Your task to perform on an android device: toggle wifi Image 0: 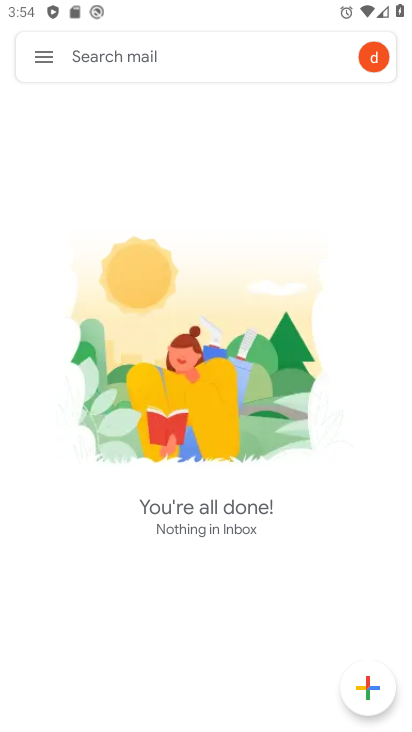
Step 0: press back button
Your task to perform on an android device: toggle wifi Image 1: 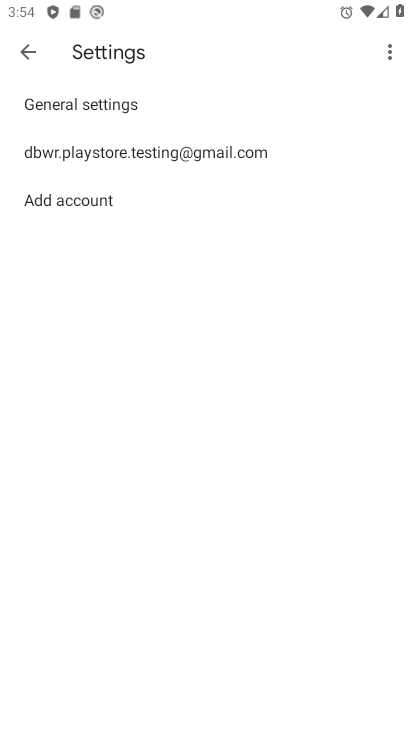
Step 1: press home button
Your task to perform on an android device: toggle wifi Image 2: 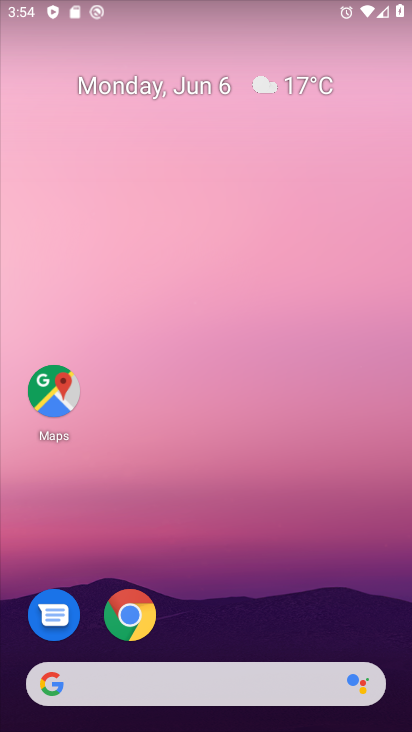
Step 2: drag from (272, 557) to (183, 10)
Your task to perform on an android device: toggle wifi Image 3: 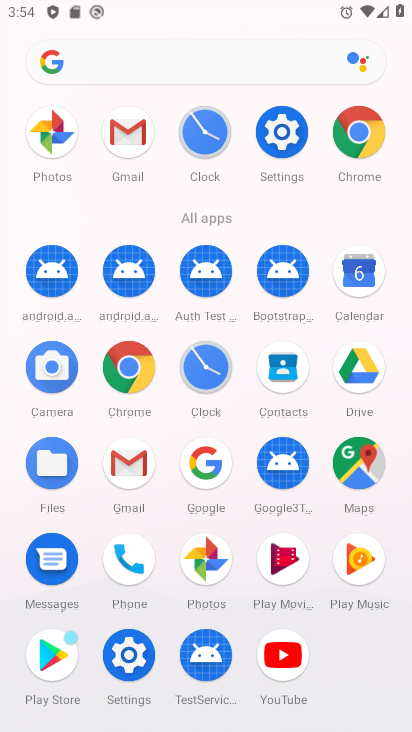
Step 3: drag from (15, 561) to (30, 303)
Your task to perform on an android device: toggle wifi Image 4: 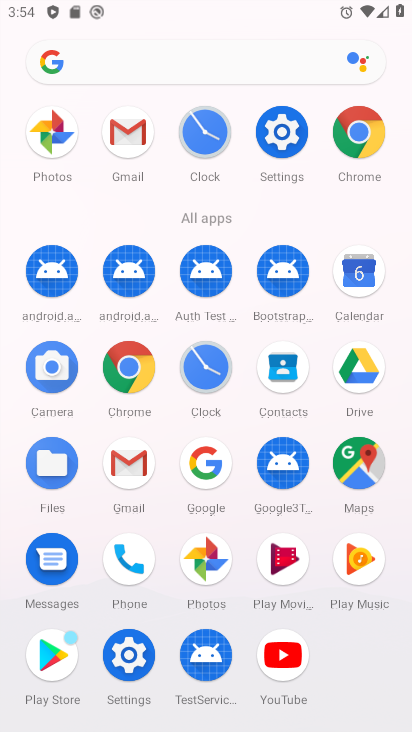
Step 4: click (125, 650)
Your task to perform on an android device: toggle wifi Image 5: 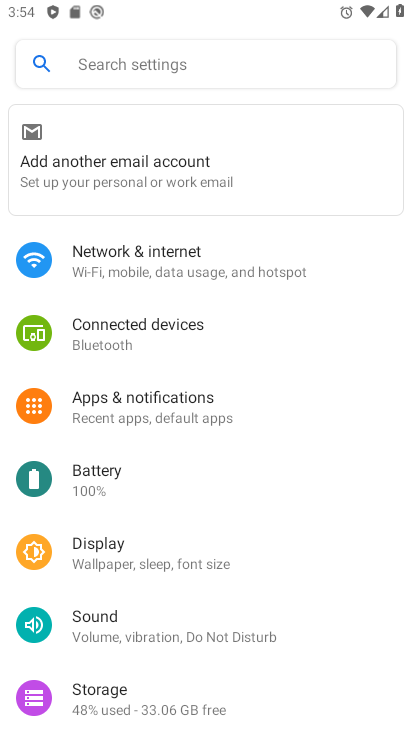
Step 5: click (168, 255)
Your task to perform on an android device: toggle wifi Image 6: 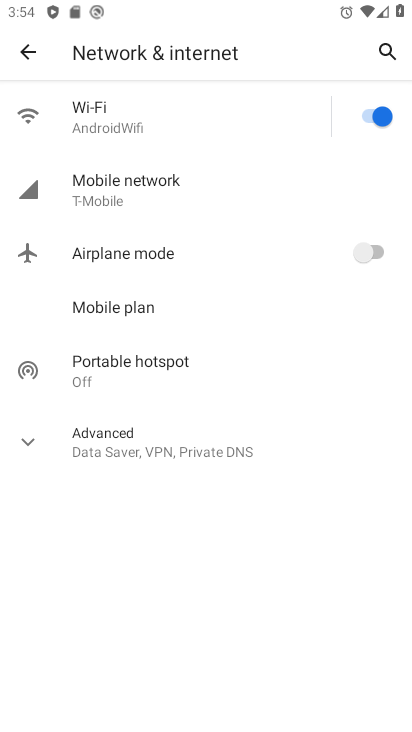
Step 6: click (382, 108)
Your task to perform on an android device: toggle wifi Image 7: 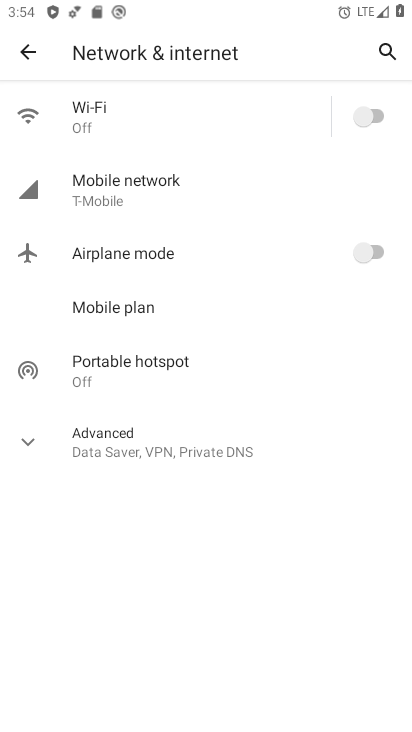
Step 7: click (32, 432)
Your task to perform on an android device: toggle wifi Image 8: 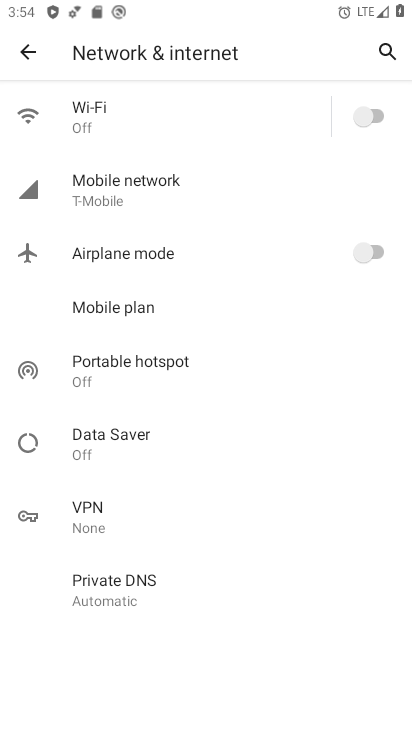
Step 8: task complete